Your task to perform on an android device: Open a new incognito window in Chrome Image 0: 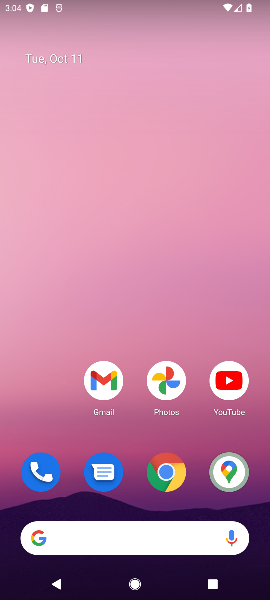
Step 0: click (170, 480)
Your task to perform on an android device: Open a new incognito window in Chrome Image 1: 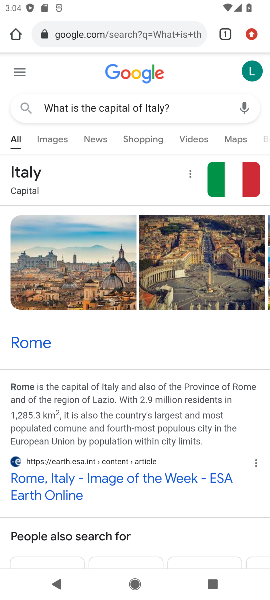
Step 1: click (249, 38)
Your task to perform on an android device: Open a new incognito window in Chrome Image 2: 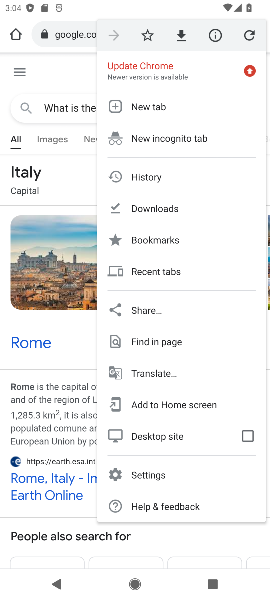
Step 2: click (181, 136)
Your task to perform on an android device: Open a new incognito window in Chrome Image 3: 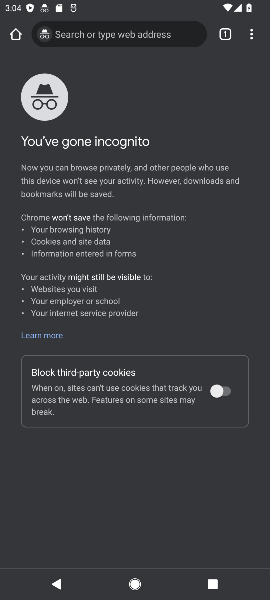
Step 3: task complete